Your task to perform on an android device: Go to notification settings Image 0: 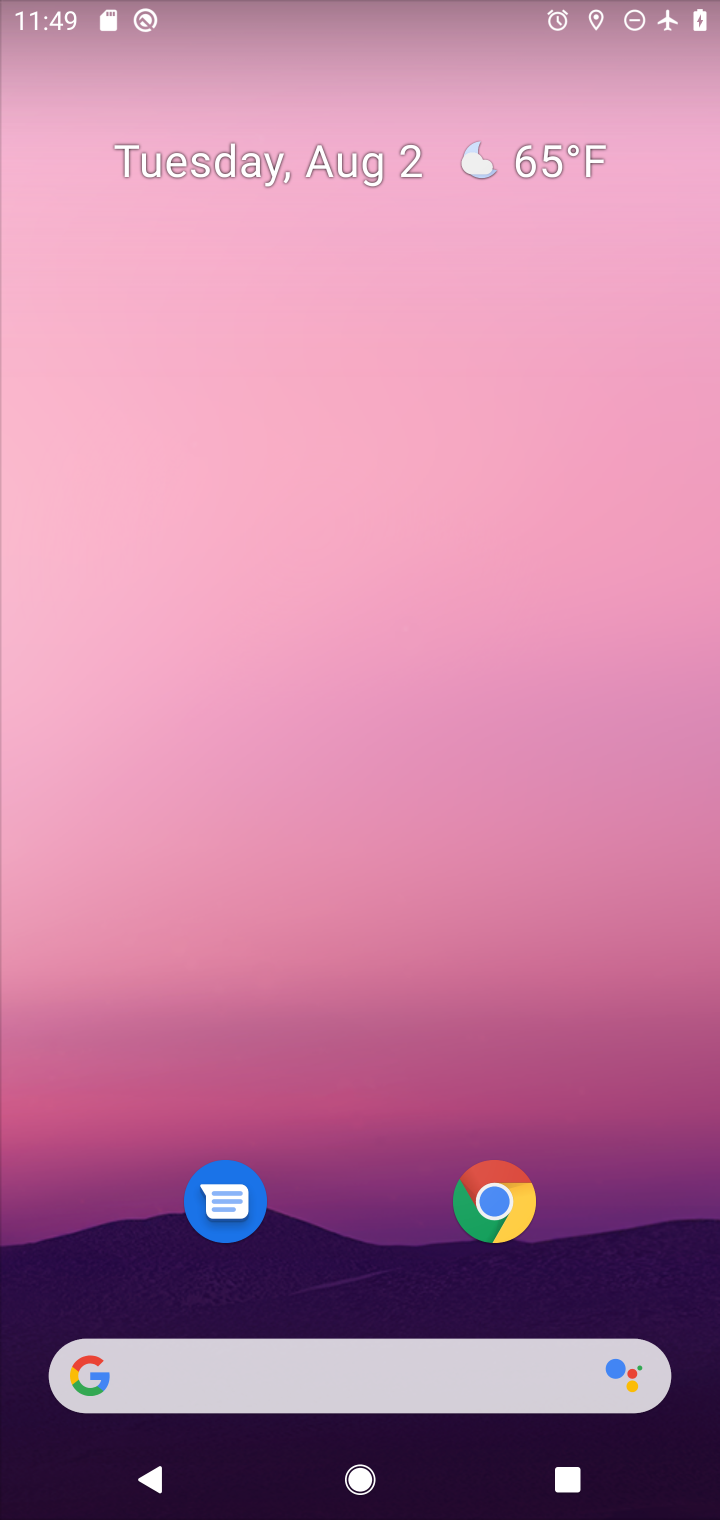
Step 0: press back button
Your task to perform on an android device: Go to notification settings Image 1: 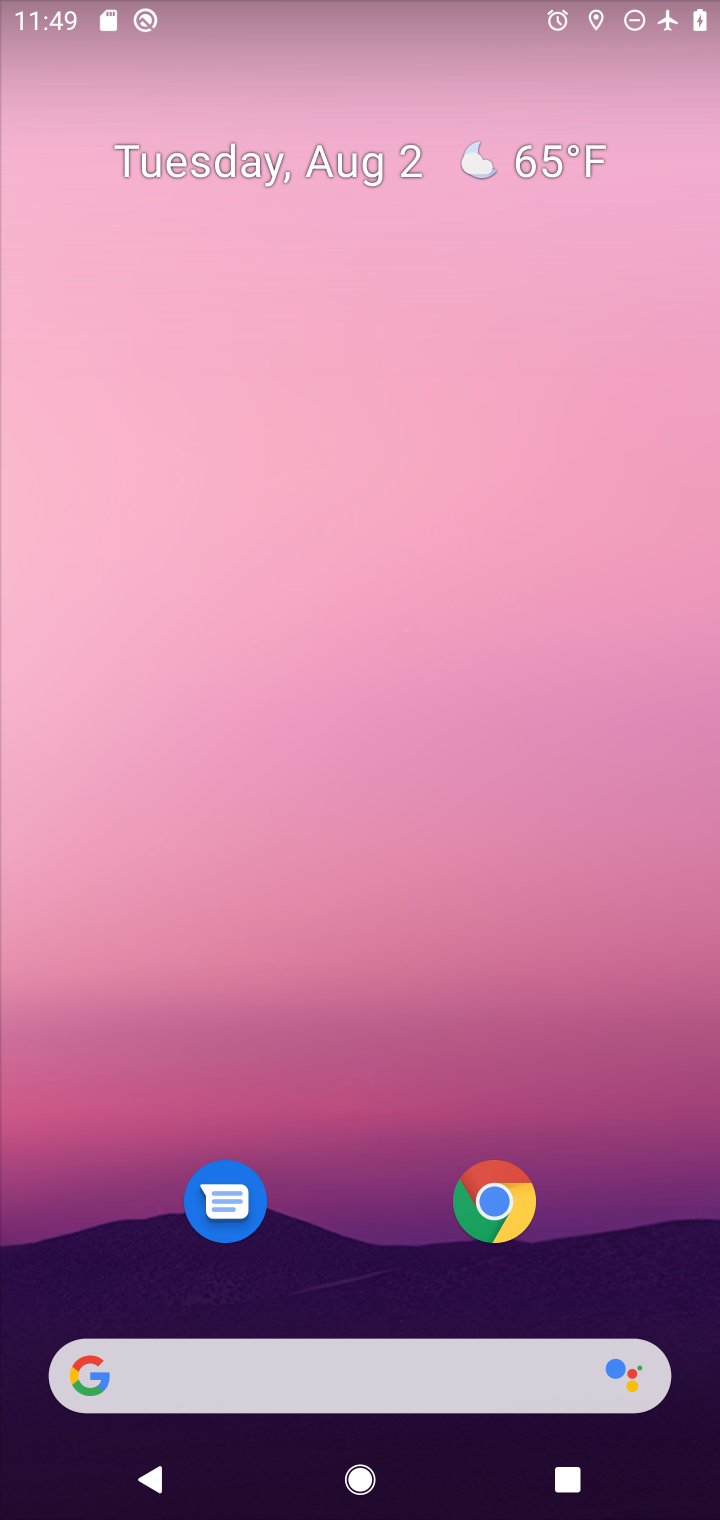
Step 1: drag from (293, 1269) to (119, 803)
Your task to perform on an android device: Go to notification settings Image 2: 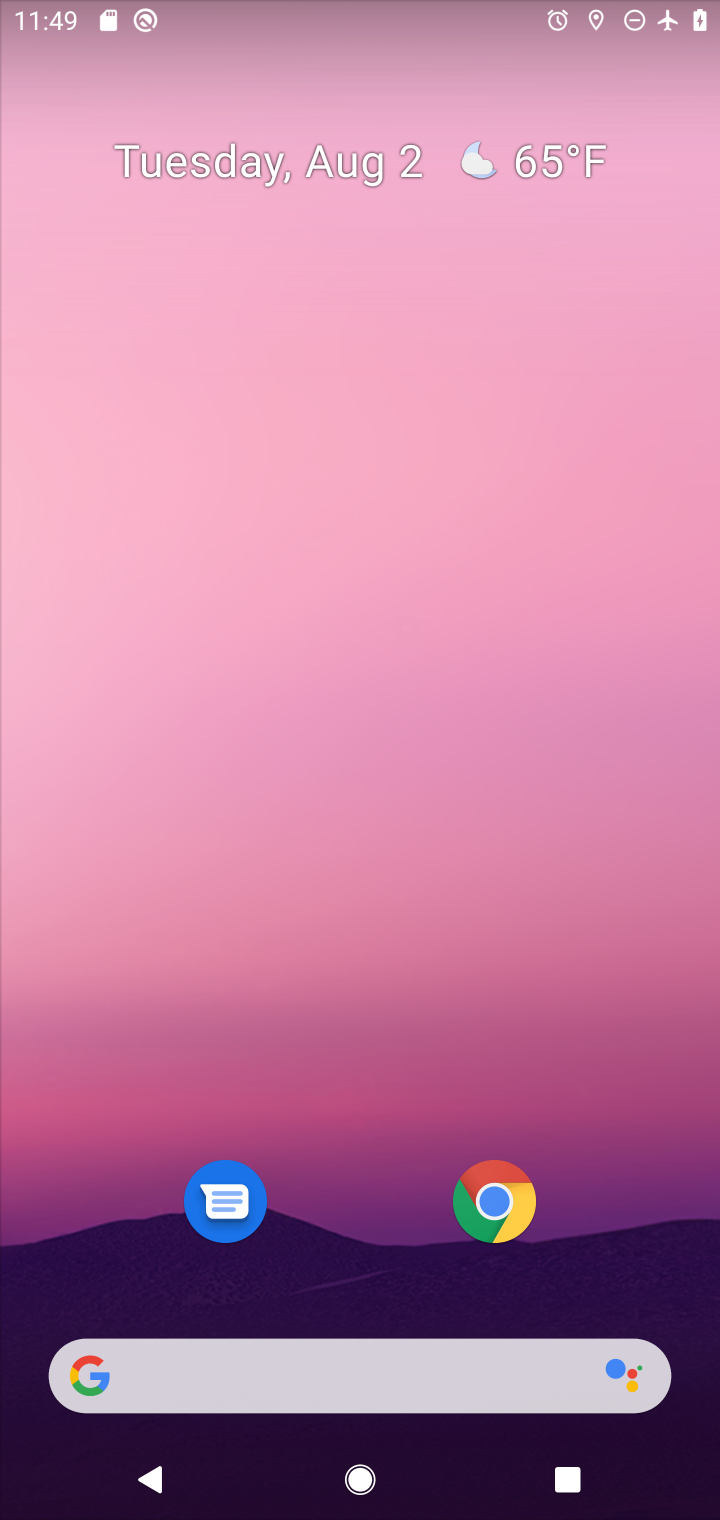
Step 2: drag from (373, 1314) to (625, 85)
Your task to perform on an android device: Go to notification settings Image 3: 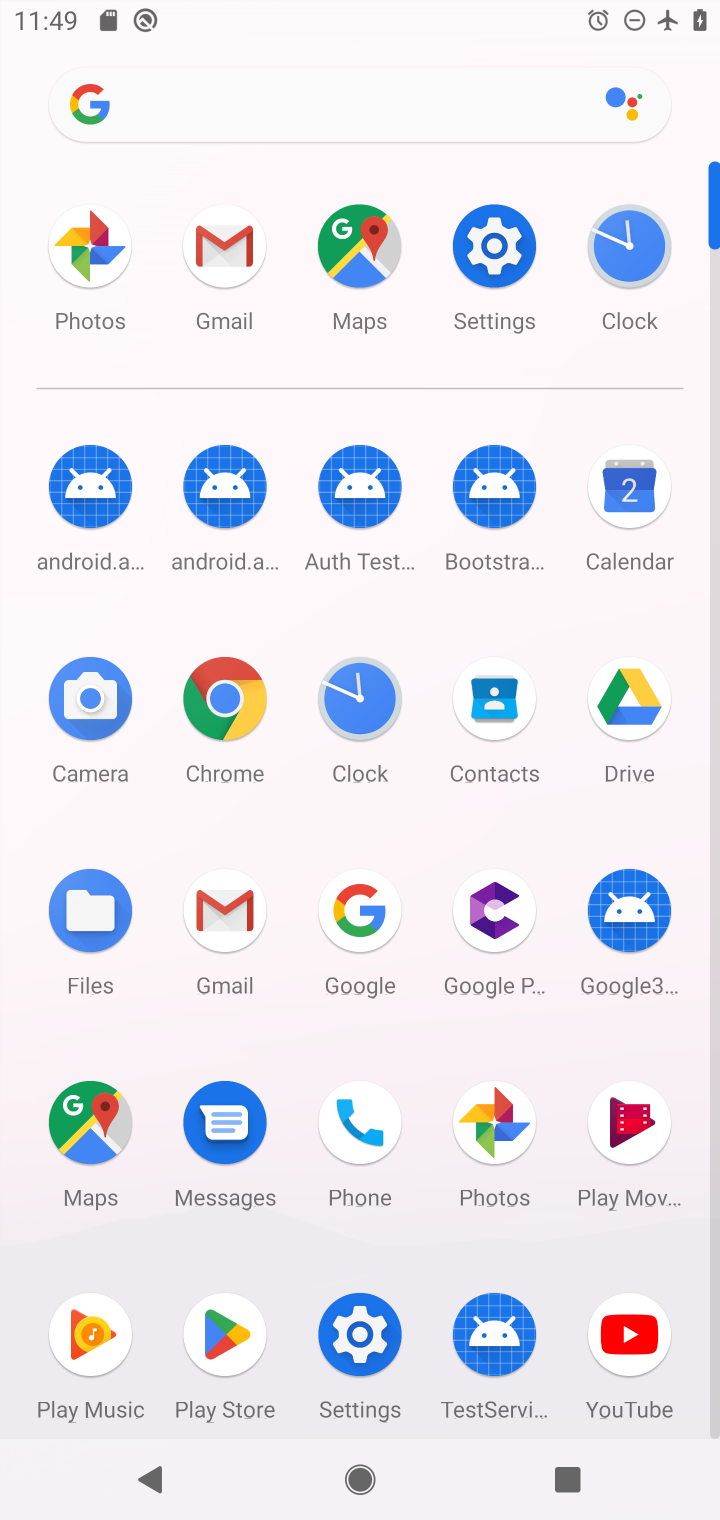
Step 3: click (366, 1330)
Your task to perform on an android device: Go to notification settings Image 4: 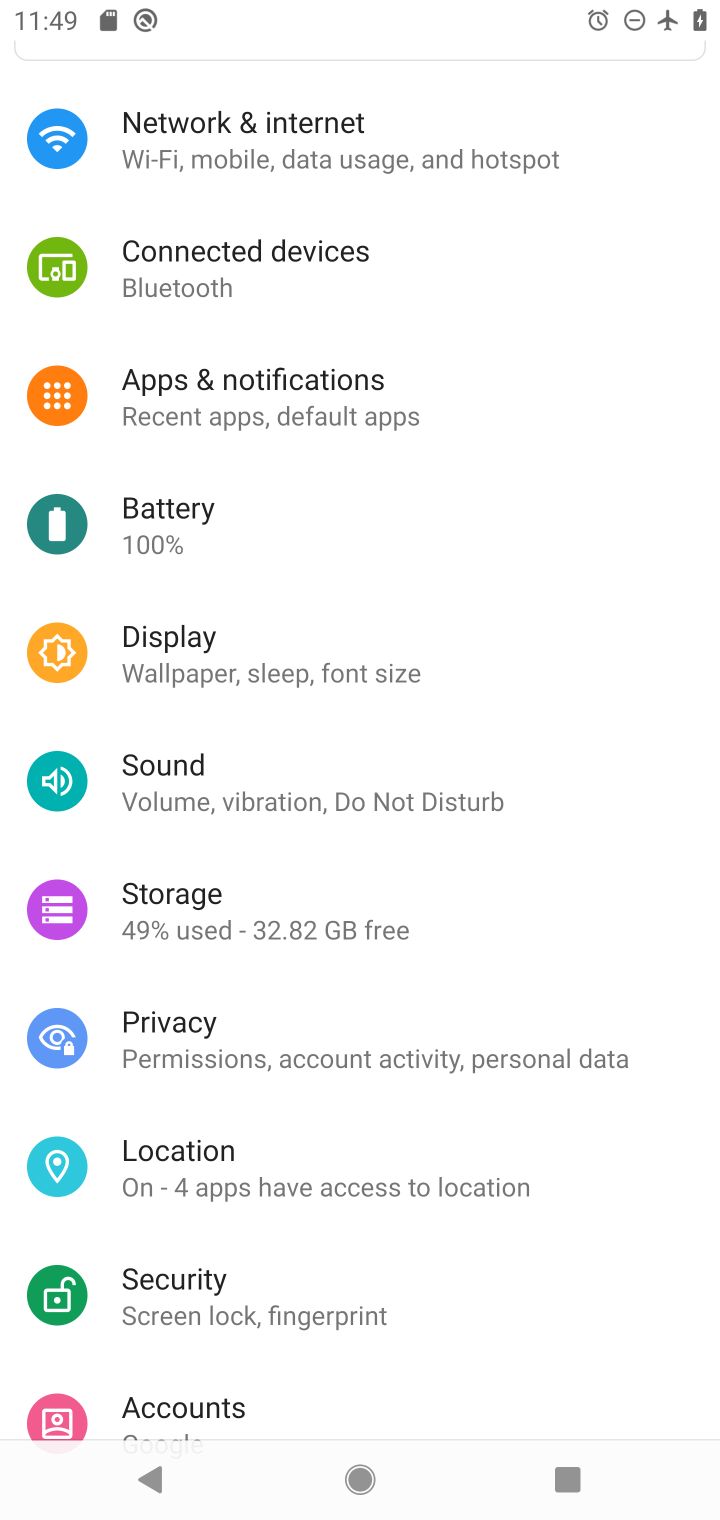
Step 4: click (197, 409)
Your task to perform on an android device: Go to notification settings Image 5: 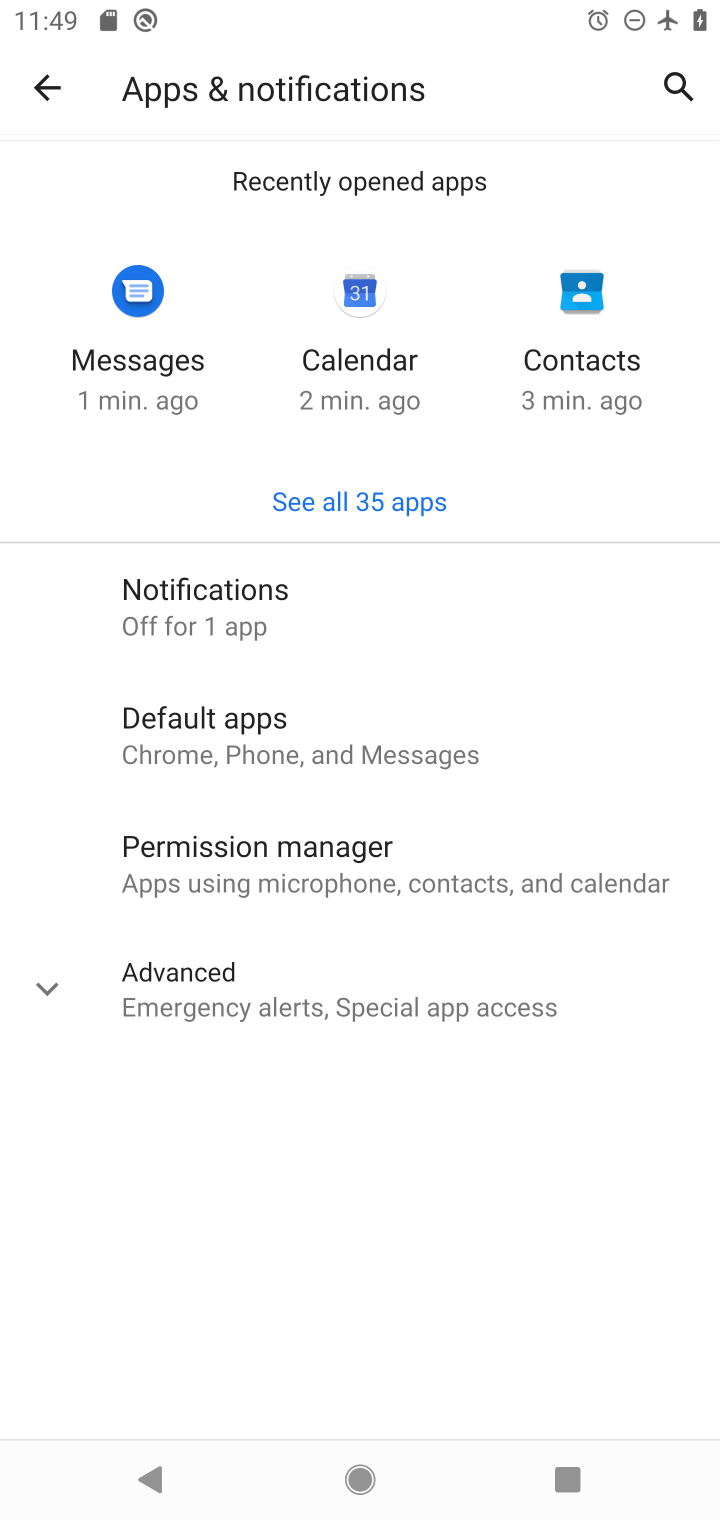
Step 5: click (342, 620)
Your task to perform on an android device: Go to notification settings Image 6: 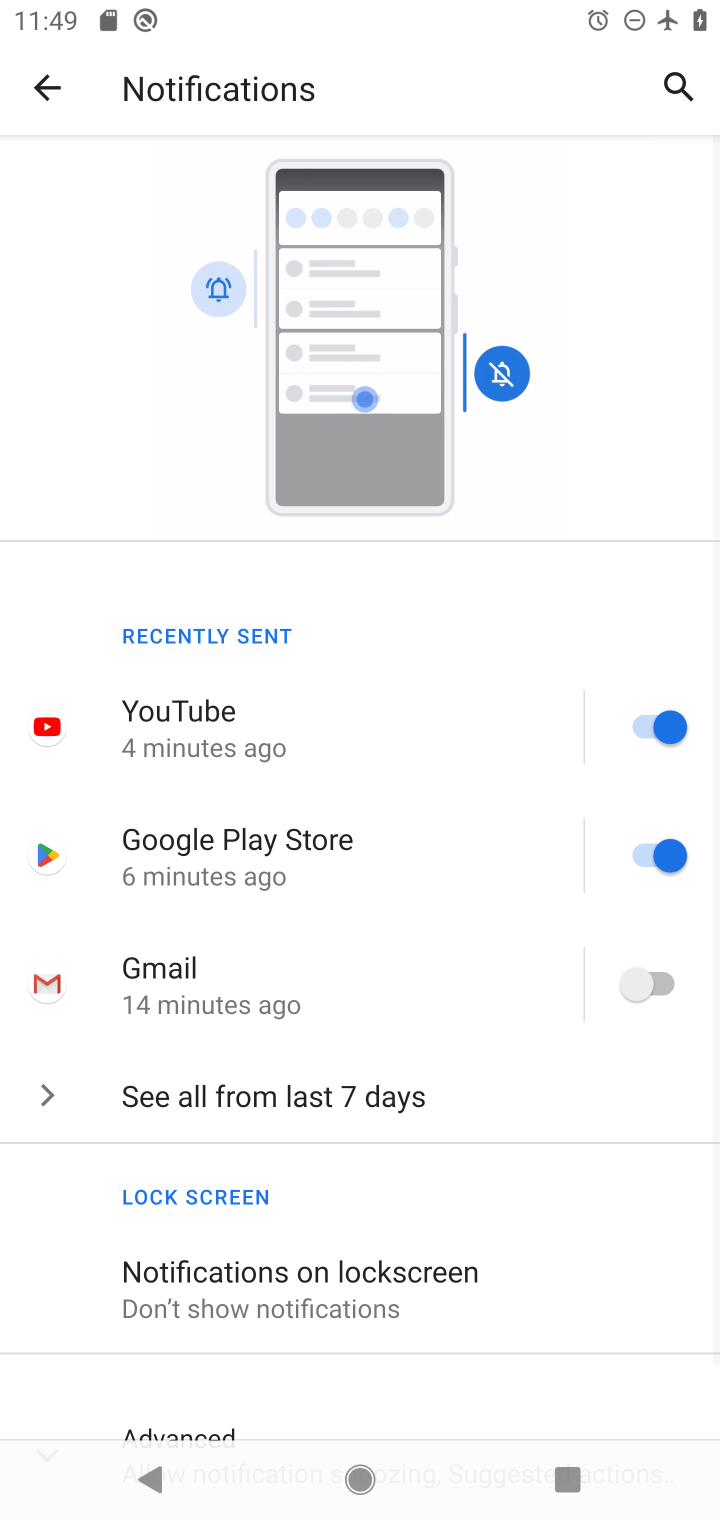
Step 6: task complete